Your task to perform on an android device: Open Wikipedia Image 0: 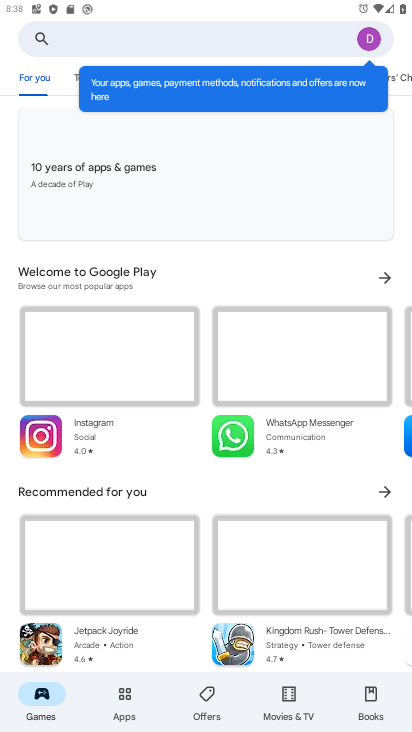
Step 0: press home button
Your task to perform on an android device: Open Wikipedia Image 1: 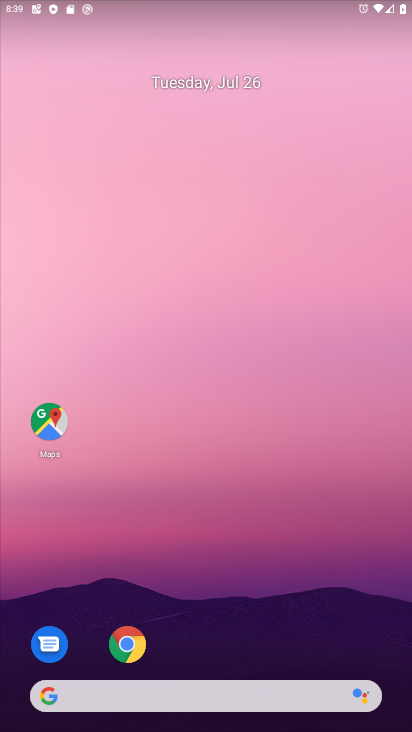
Step 1: drag from (184, 617) to (195, 244)
Your task to perform on an android device: Open Wikipedia Image 2: 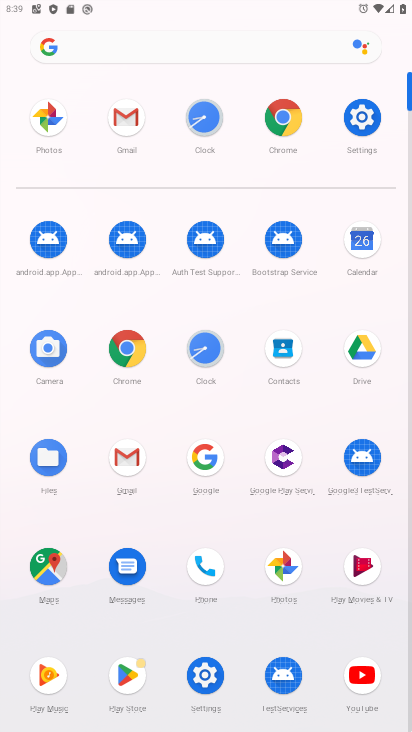
Step 2: click (276, 120)
Your task to perform on an android device: Open Wikipedia Image 3: 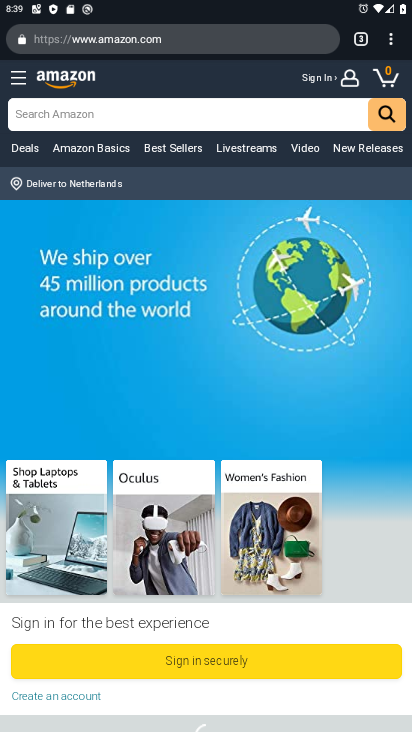
Step 3: click (390, 49)
Your task to perform on an android device: Open Wikipedia Image 4: 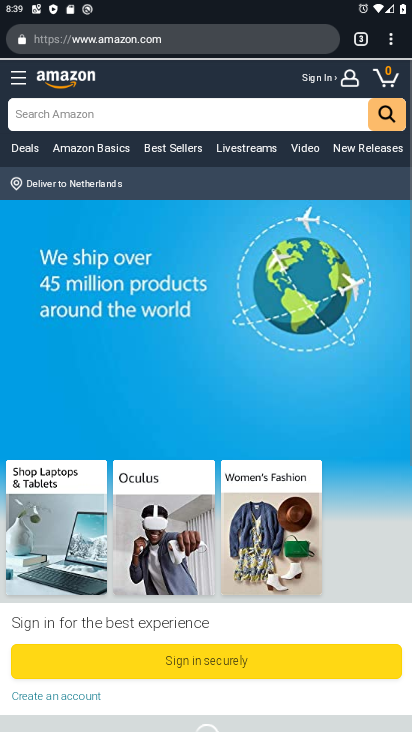
Step 4: click (408, 37)
Your task to perform on an android device: Open Wikipedia Image 5: 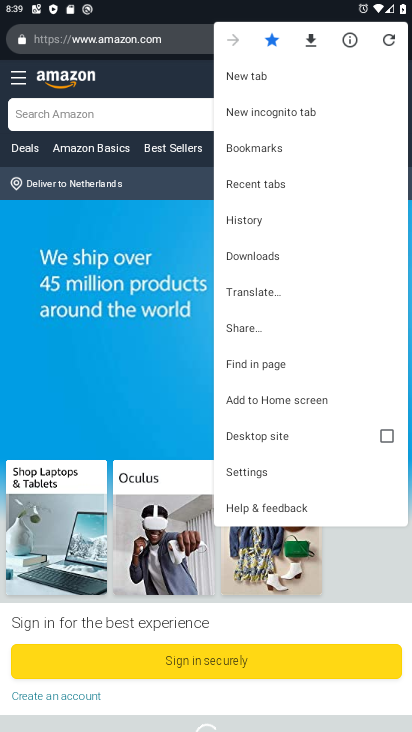
Step 5: click (266, 80)
Your task to perform on an android device: Open Wikipedia Image 6: 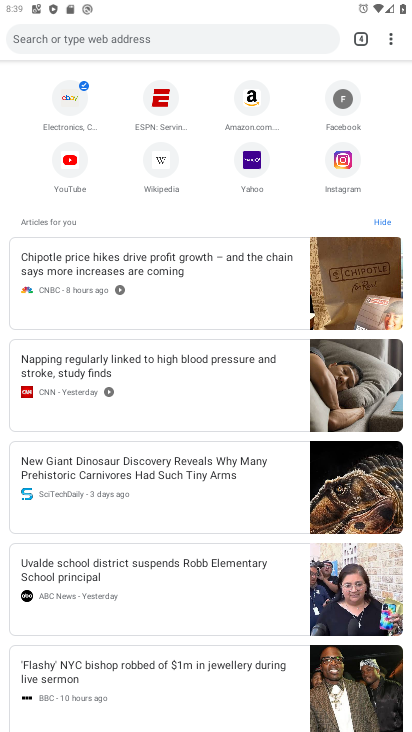
Step 6: click (163, 170)
Your task to perform on an android device: Open Wikipedia Image 7: 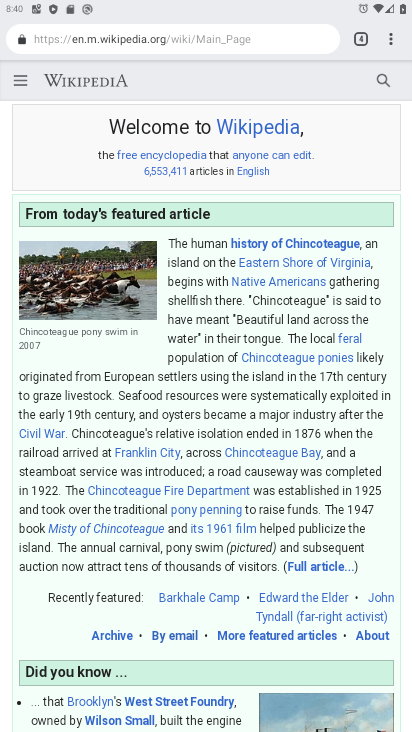
Step 7: task complete